Your task to perform on an android device: Search for vegetarian restaurants on Maps Image 0: 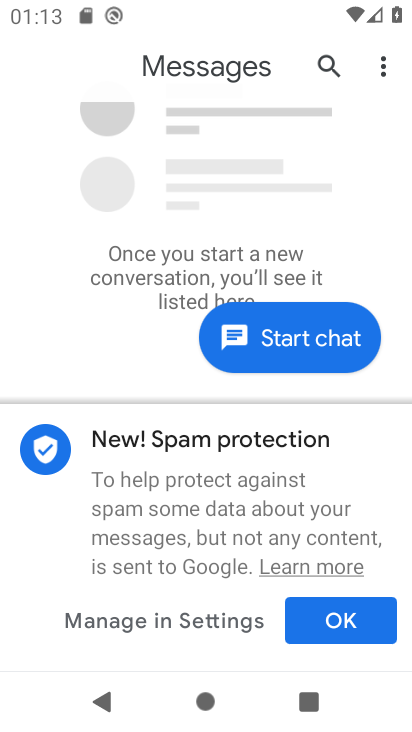
Step 0: press home button
Your task to perform on an android device: Search for vegetarian restaurants on Maps Image 1: 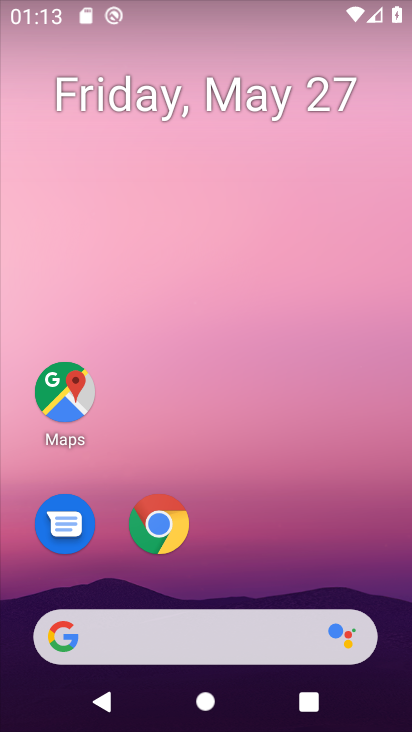
Step 1: click (67, 383)
Your task to perform on an android device: Search for vegetarian restaurants on Maps Image 2: 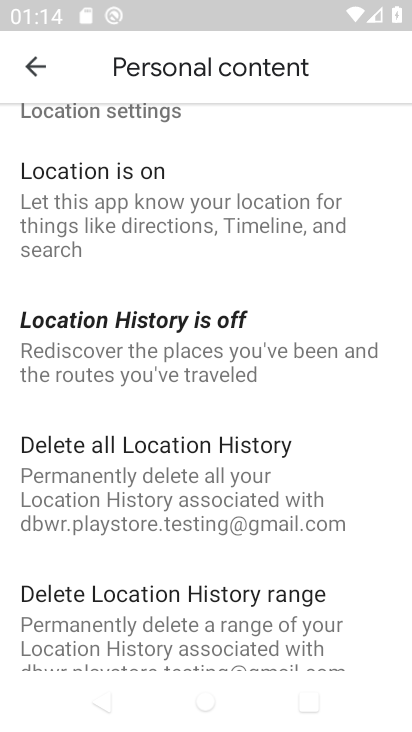
Step 2: click (41, 60)
Your task to perform on an android device: Search for vegetarian restaurants on Maps Image 3: 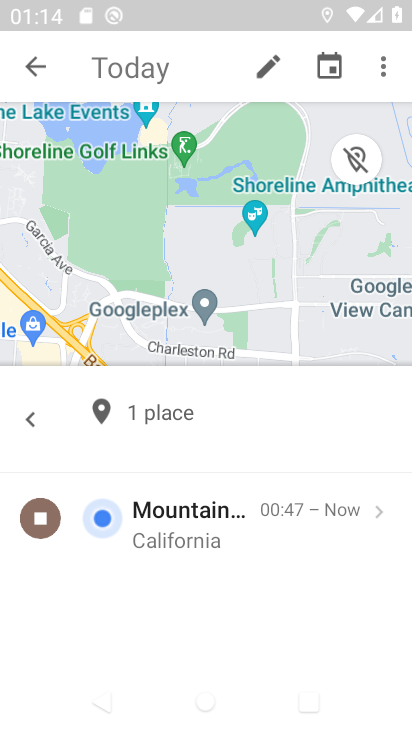
Step 3: click (37, 60)
Your task to perform on an android device: Search for vegetarian restaurants on Maps Image 4: 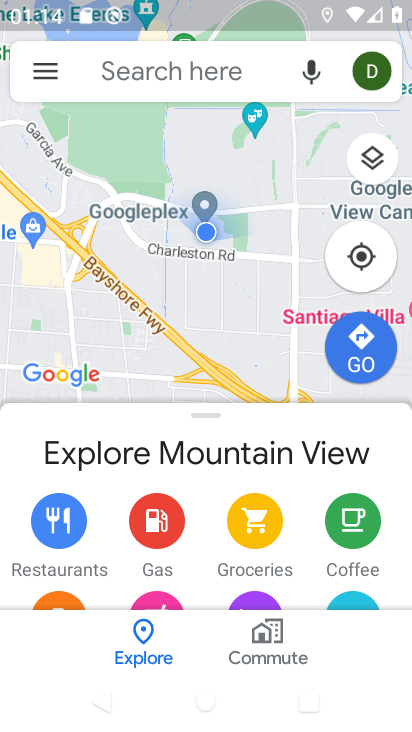
Step 4: click (99, 60)
Your task to perform on an android device: Search for vegetarian restaurants on Maps Image 5: 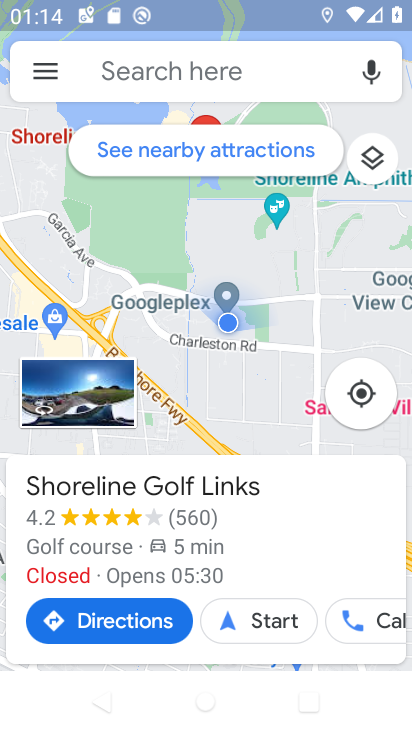
Step 5: click (122, 60)
Your task to perform on an android device: Search for vegetarian restaurants on Maps Image 6: 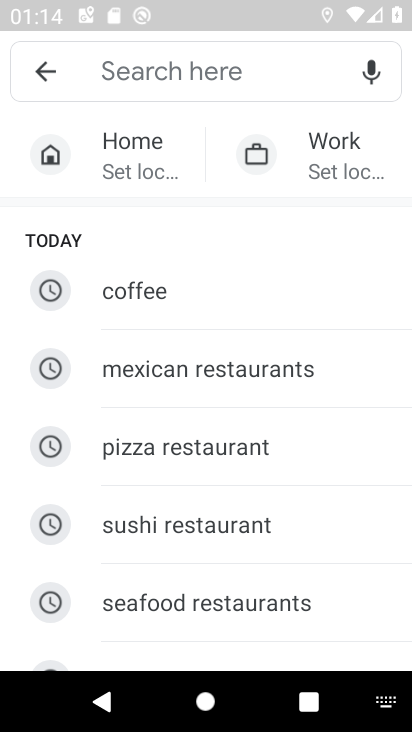
Step 6: drag from (225, 546) to (252, 616)
Your task to perform on an android device: Search for vegetarian restaurants on Maps Image 7: 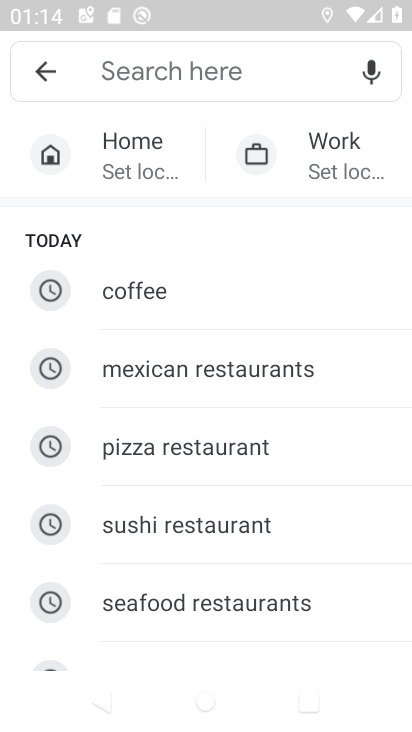
Step 7: click (233, 72)
Your task to perform on an android device: Search for vegetarian restaurants on Maps Image 8: 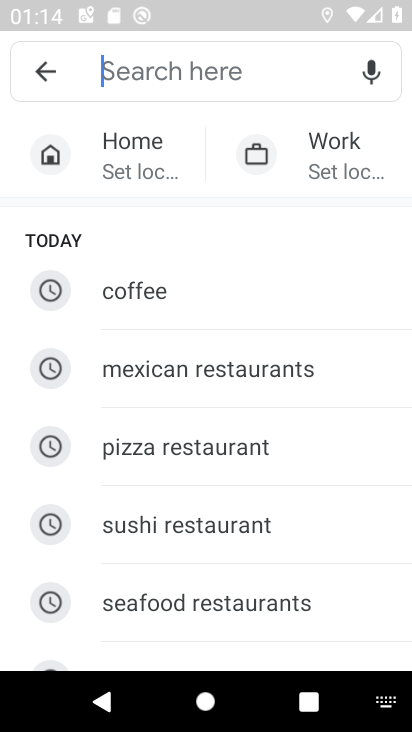
Step 8: type "vegetarian restaurants"
Your task to perform on an android device: Search for vegetarian restaurants on Maps Image 9: 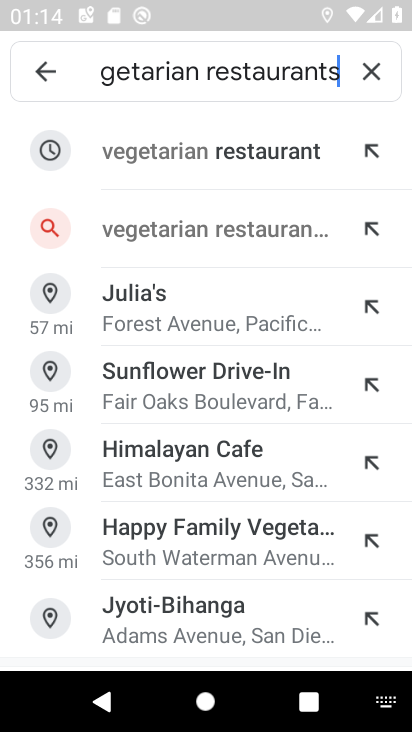
Step 9: click (268, 155)
Your task to perform on an android device: Search for vegetarian restaurants on Maps Image 10: 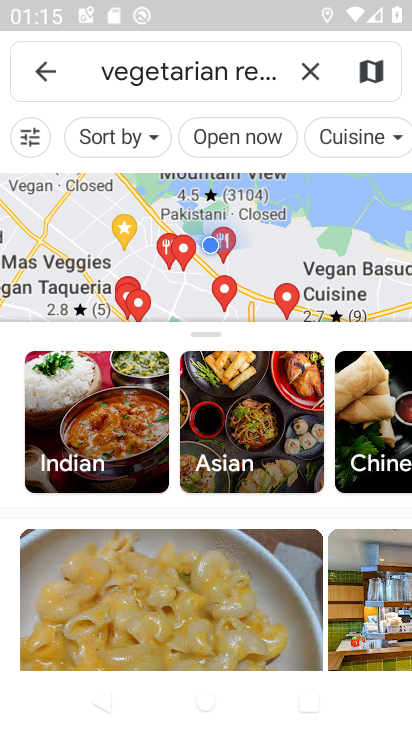
Step 10: task complete